Your task to perform on an android device: Search for flights from London to Paris Image 0: 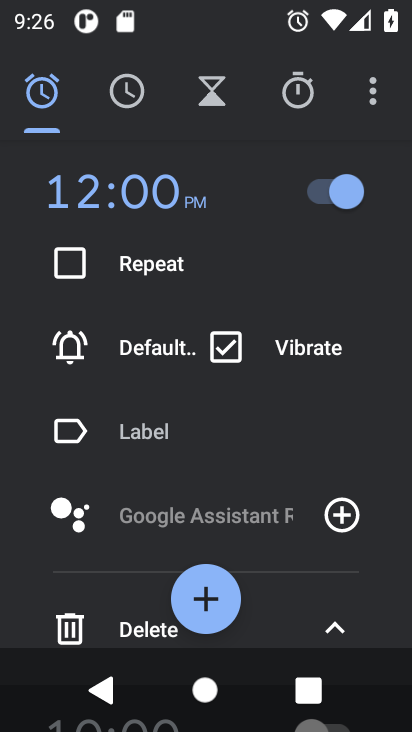
Step 0: press home button
Your task to perform on an android device: Search for flights from London to Paris Image 1: 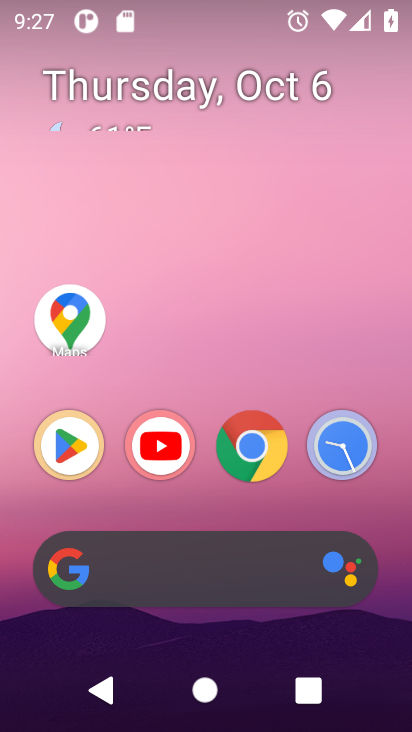
Step 1: click (164, 547)
Your task to perform on an android device: Search for flights from London to Paris Image 2: 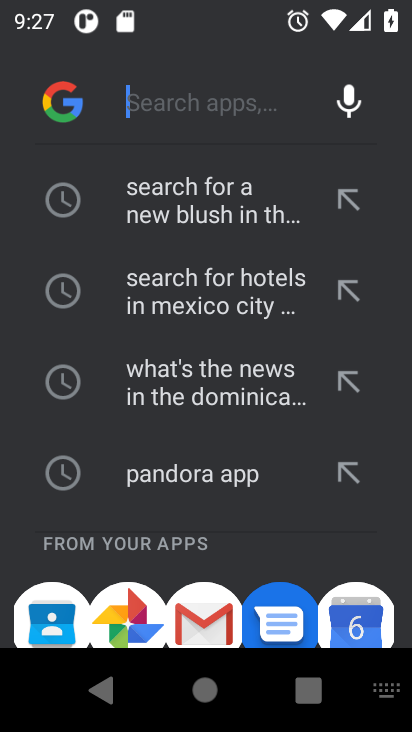
Step 2: type "Search for flights from London to Paris"
Your task to perform on an android device: Search for flights from London to Paris Image 3: 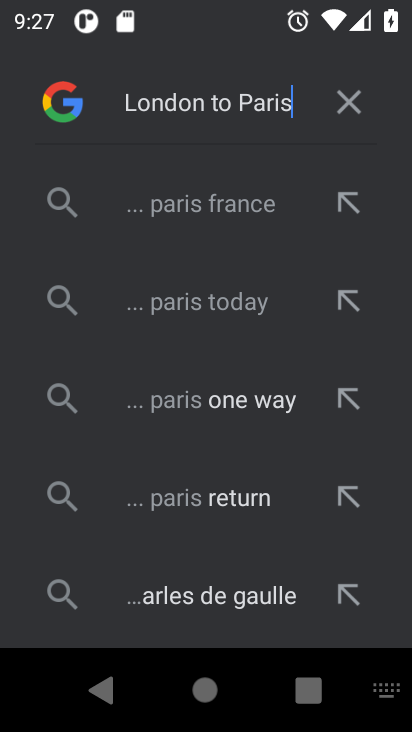
Step 3: click (166, 226)
Your task to perform on an android device: Search for flights from London to Paris Image 4: 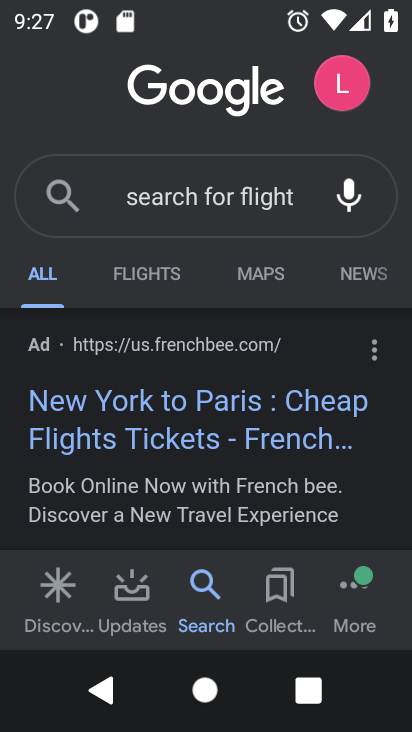
Step 4: task complete